Your task to perform on an android device: Clear the cart on target.com. Search for razer deathadder on target.com, select the first entry, add it to the cart, then select checkout. Image 0: 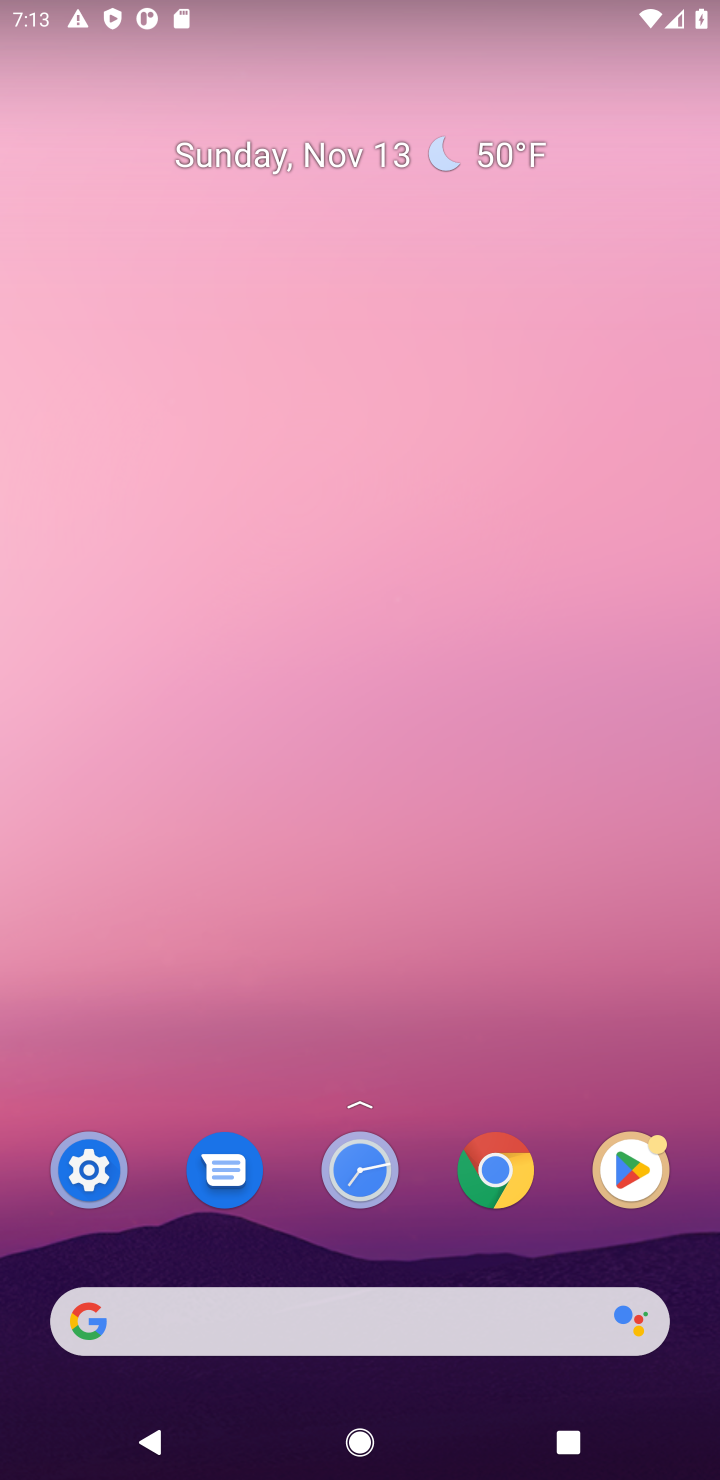
Step 0: click (390, 1322)
Your task to perform on an android device: Clear the cart on target.com. Search for razer deathadder on target.com, select the first entry, add it to the cart, then select checkout. Image 1: 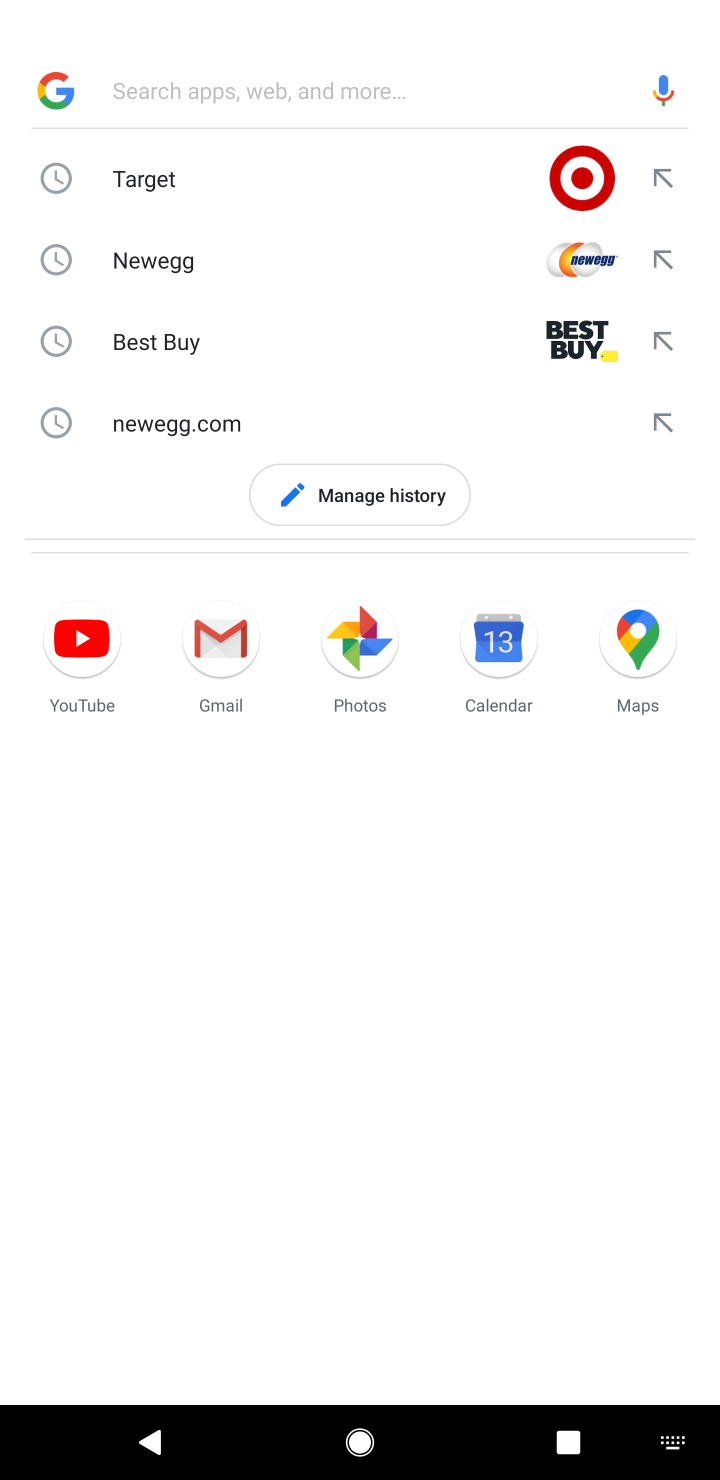
Step 1: click (244, 153)
Your task to perform on an android device: Clear the cart on target.com. Search for razer deathadder on target.com, select the first entry, add it to the cart, then select checkout. Image 2: 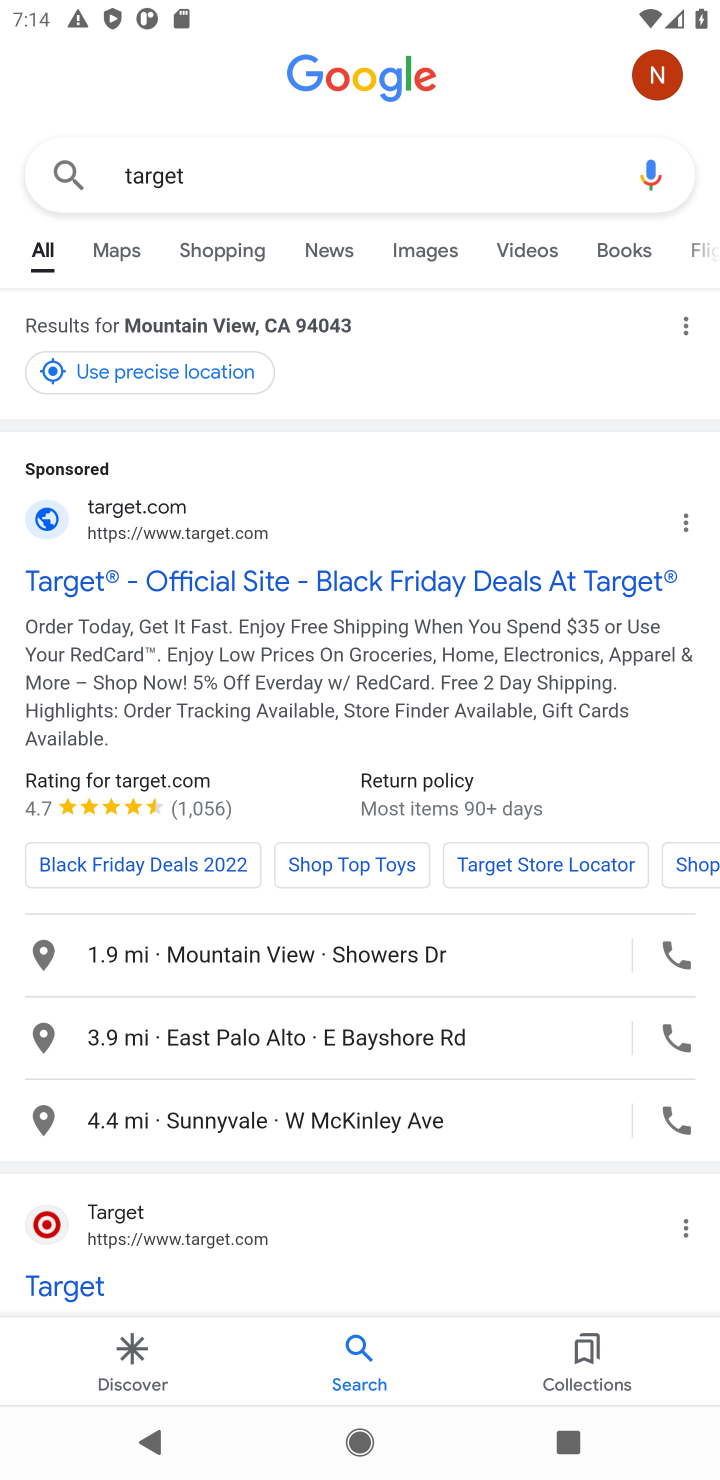
Step 2: click (130, 570)
Your task to perform on an android device: Clear the cart on target.com. Search for razer deathadder on target.com, select the first entry, add it to the cart, then select checkout. Image 3: 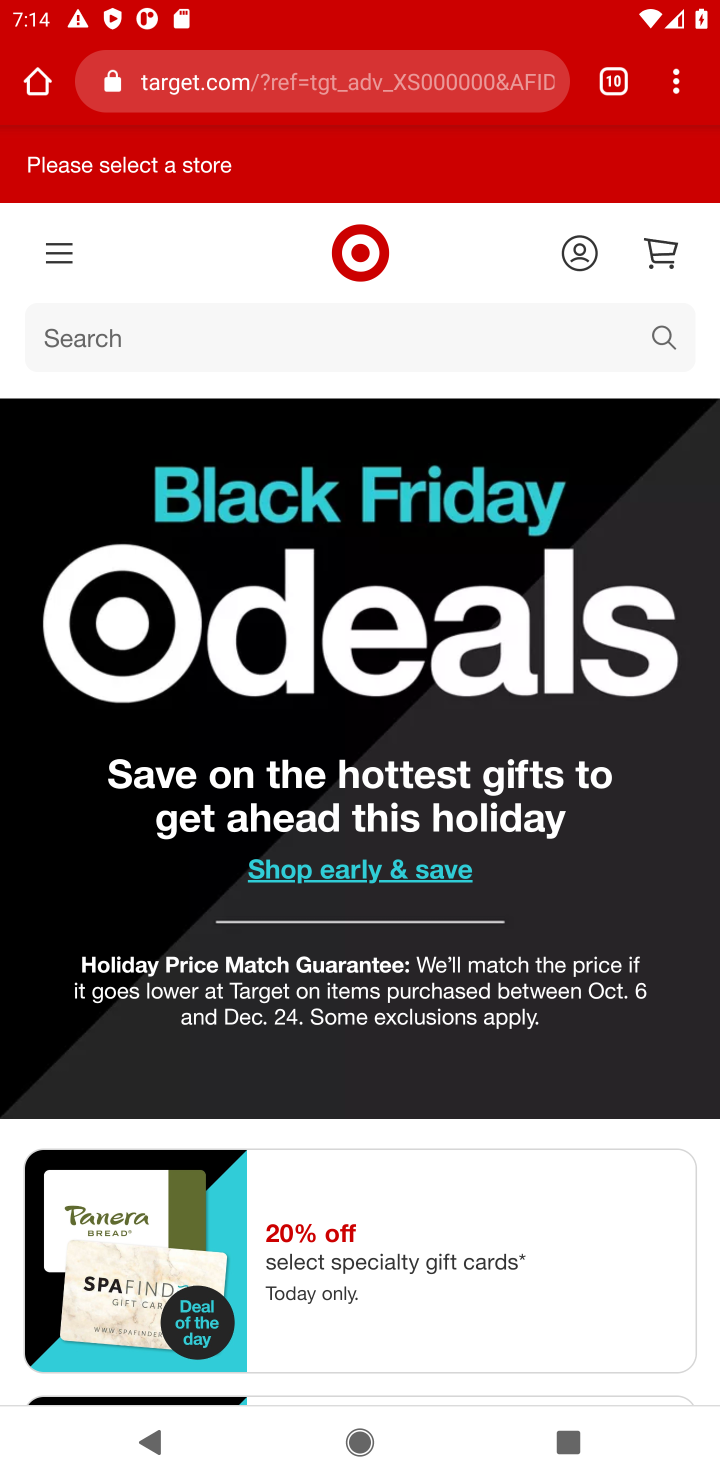
Step 3: click (265, 335)
Your task to perform on an android device: Clear the cart on target.com. Search for razer deathadder on target.com, select the first entry, add it to the cart, then select checkout. Image 4: 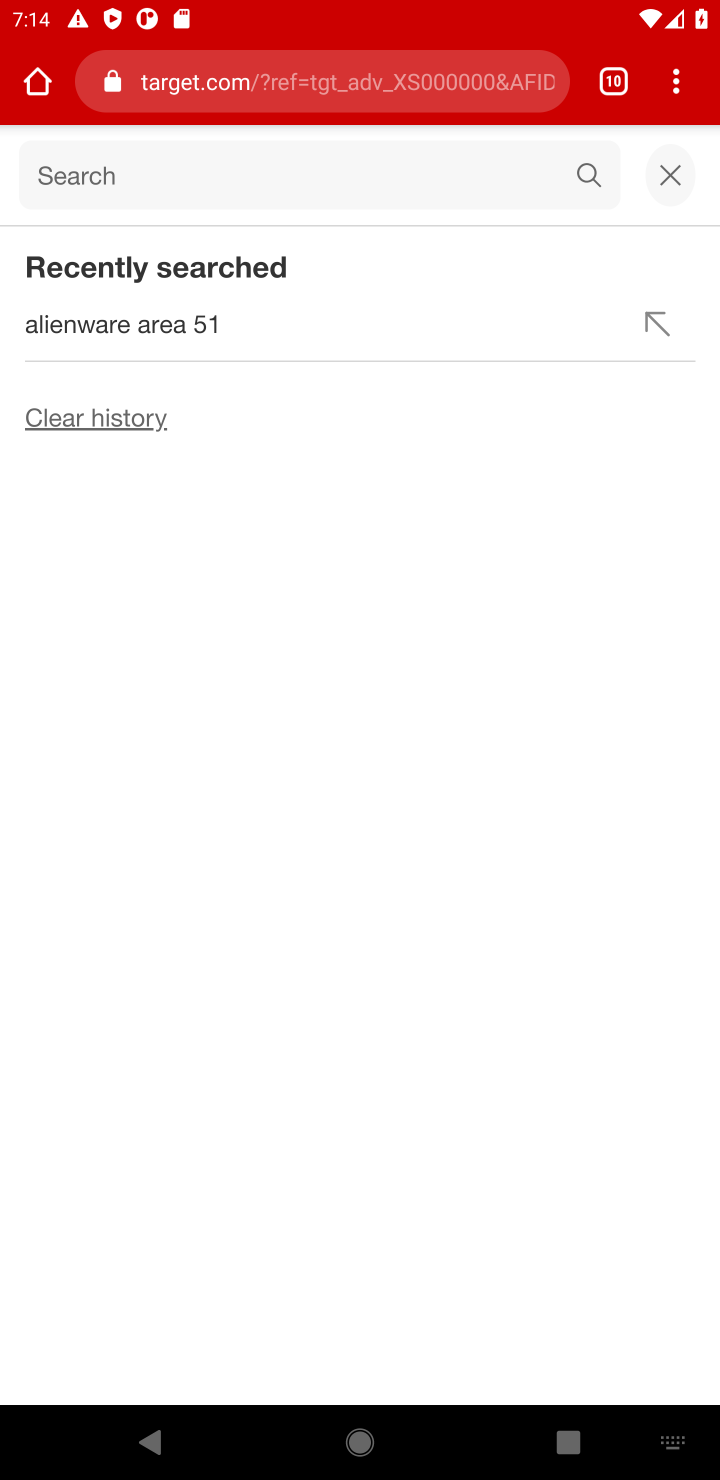
Step 4: task complete